Your task to perform on an android device: Go to privacy settings Image 0: 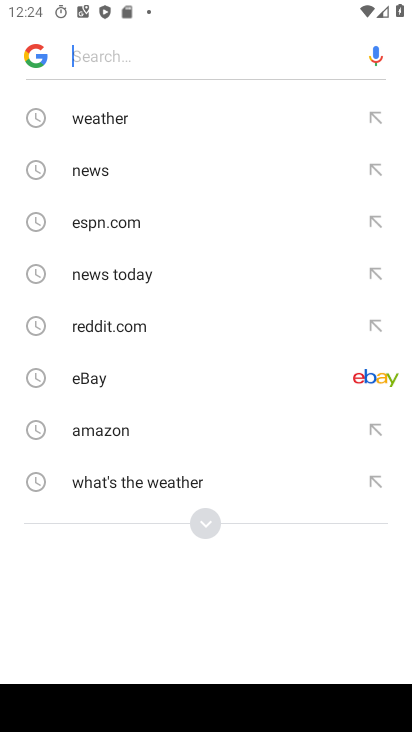
Step 0: press home button
Your task to perform on an android device: Go to privacy settings Image 1: 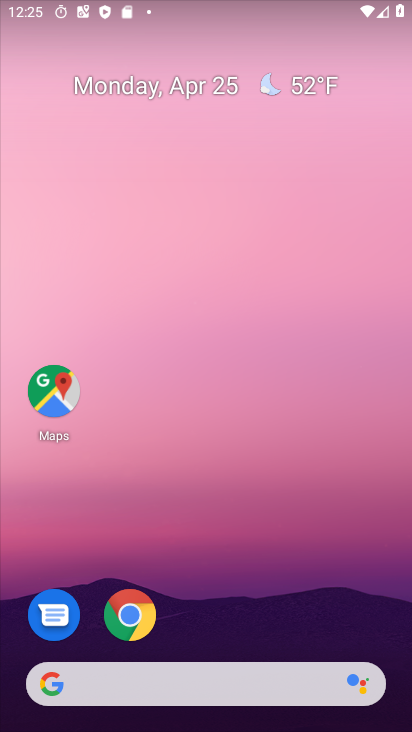
Step 1: drag from (180, 619) to (246, 10)
Your task to perform on an android device: Go to privacy settings Image 2: 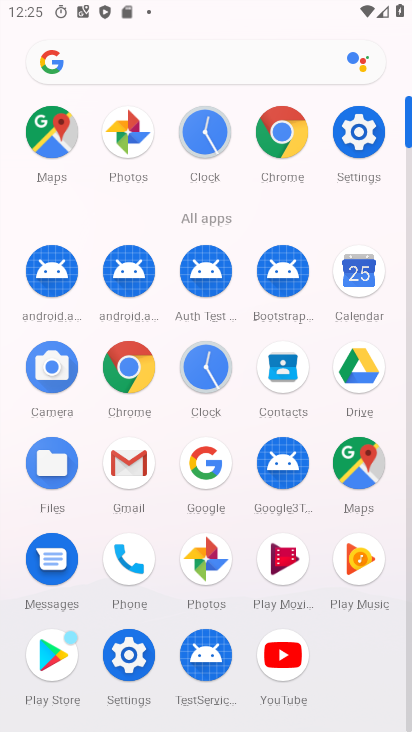
Step 2: click (357, 138)
Your task to perform on an android device: Go to privacy settings Image 3: 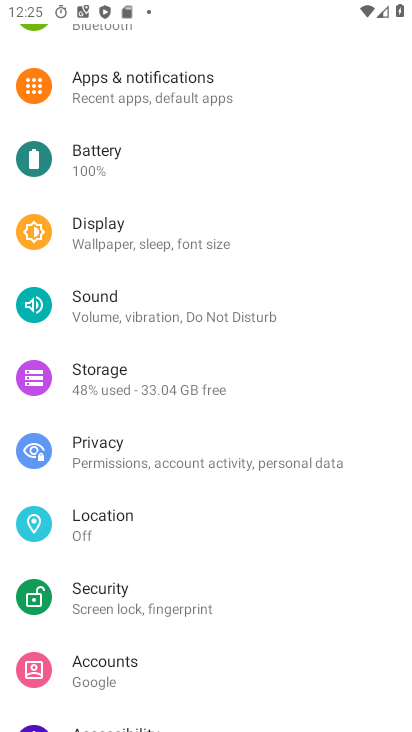
Step 3: click (133, 452)
Your task to perform on an android device: Go to privacy settings Image 4: 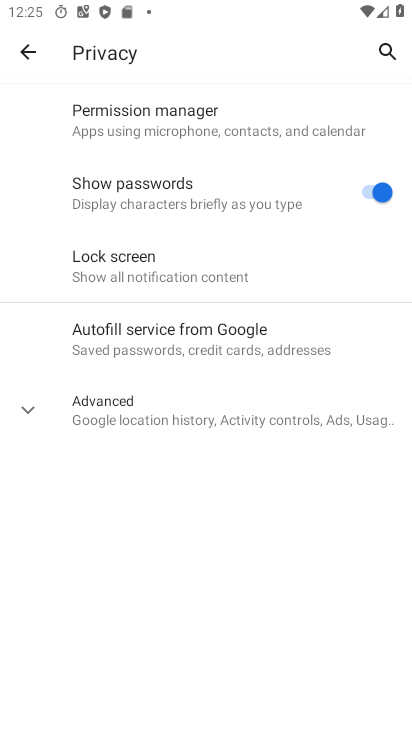
Step 4: click (67, 420)
Your task to perform on an android device: Go to privacy settings Image 5: 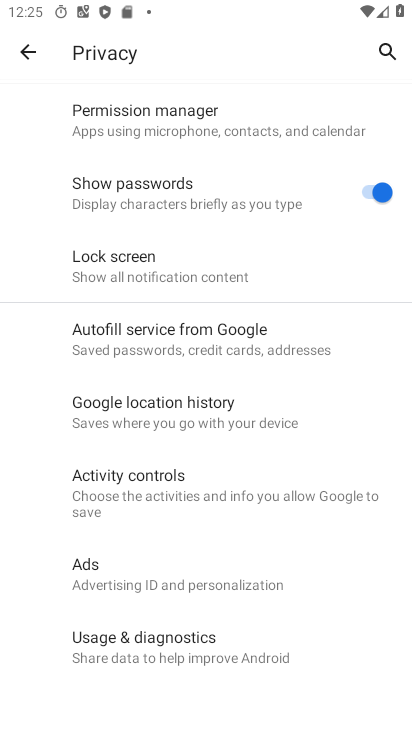
Step 5: task complete